Your task to perform on an android device: Open the Play Movies app and select the watchlist tab. Image 0: 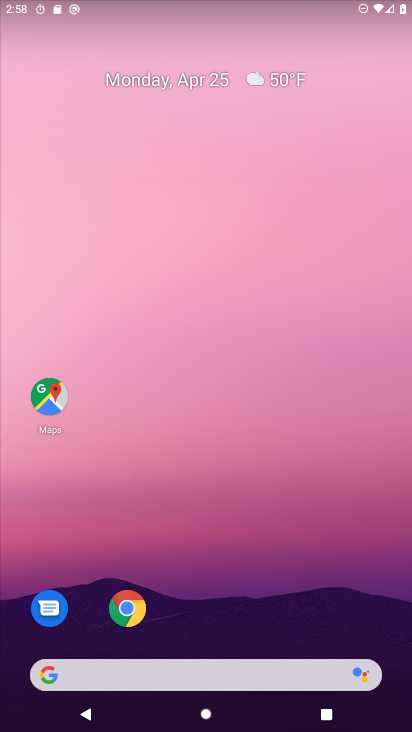
Step 0: drag from (213, 632) to (264, 212)
Your task to perform on an android device: Open the Play Movies app and select the watchlist tab. Image 1: 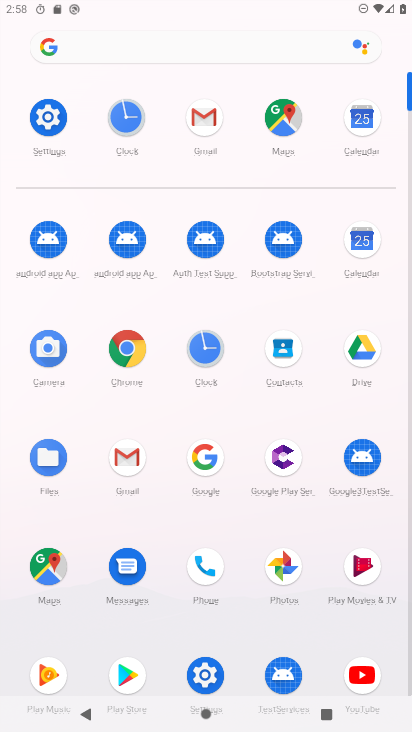
Step 1: click (362, 579)
Your task to perform on an android device: Open the Play Movies app and select the watchlist tab. Image 2: 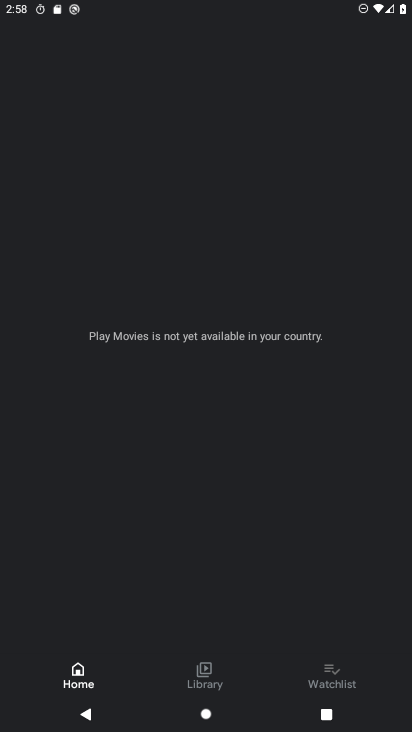
Step 2: click (340, 673)
Your task to perform on an android device: Open the Play Movies app and select the watchlist tab. Image 3: 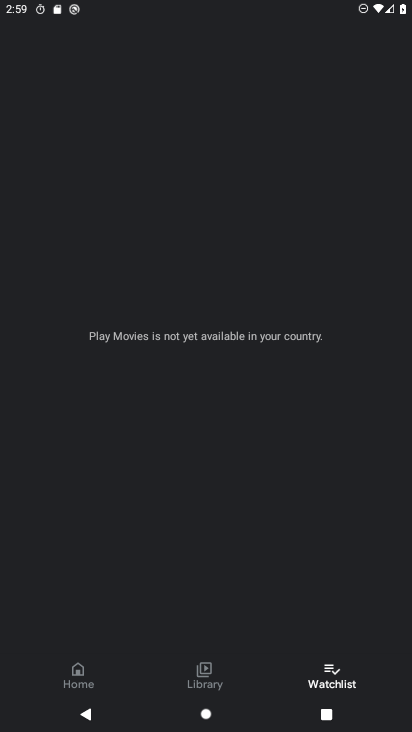
Step 3: task complete